Your task to perform on an android device: toggle data saver in the chrome app Image 0: 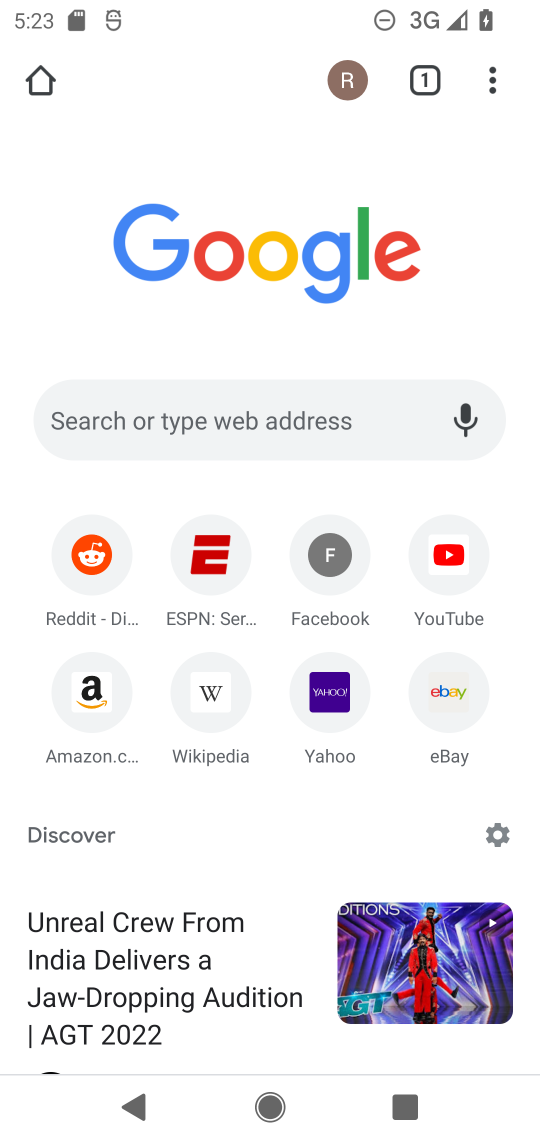
Step 0: click (499, 69)
Your task to perform on an android device: toggle data saver in the chrome app Image 1: 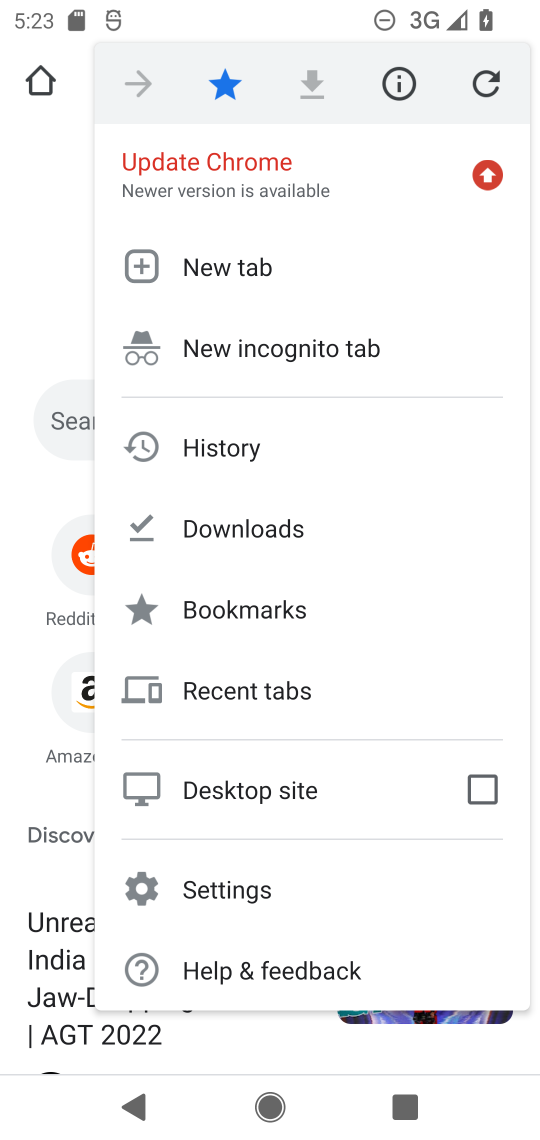
Step 1: click (254, 877)
Your task to perform on an android device: toggle data saver in the chrome app Image 2: 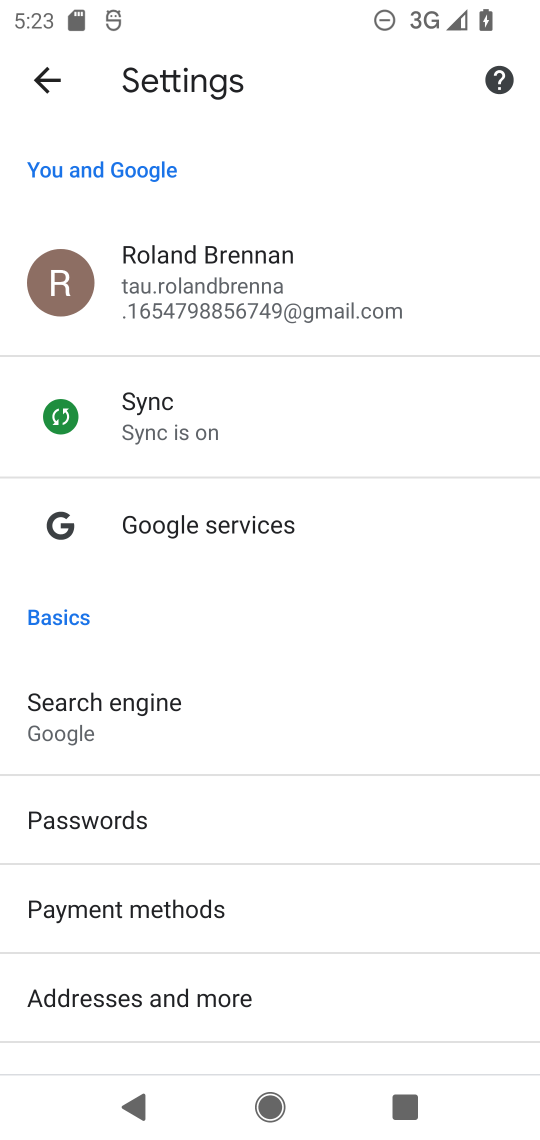
Step 2: drag from (140, 949) to (182, 310)
Your task to perform on an android device: toggle data saver in the chrome app Image 3: 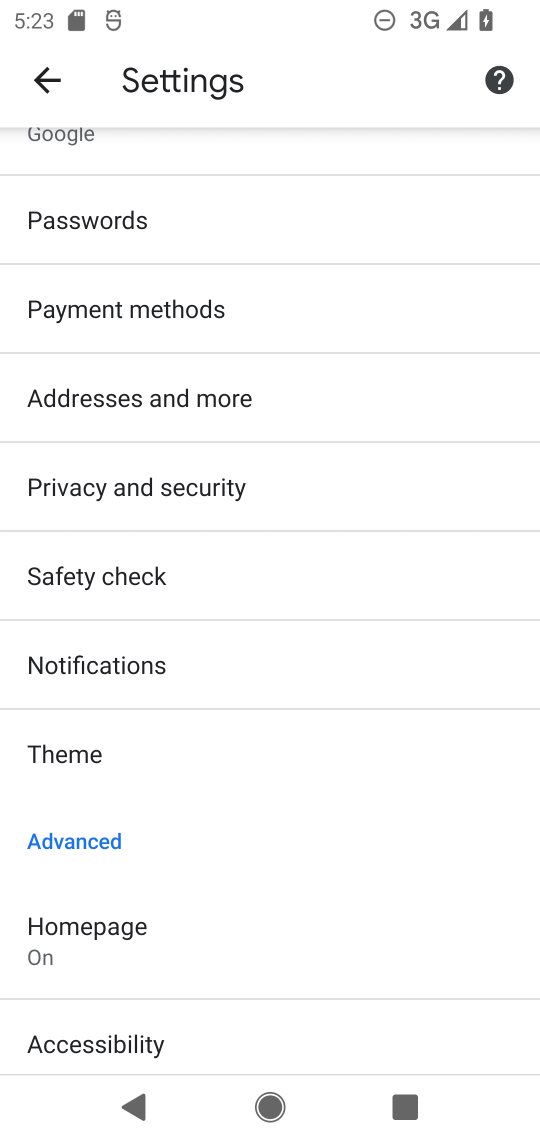
Step 3: drag from (151, 964) to (172, 278)
Your task to perform on an android device: toggle data saver in the chrome app Image 4: 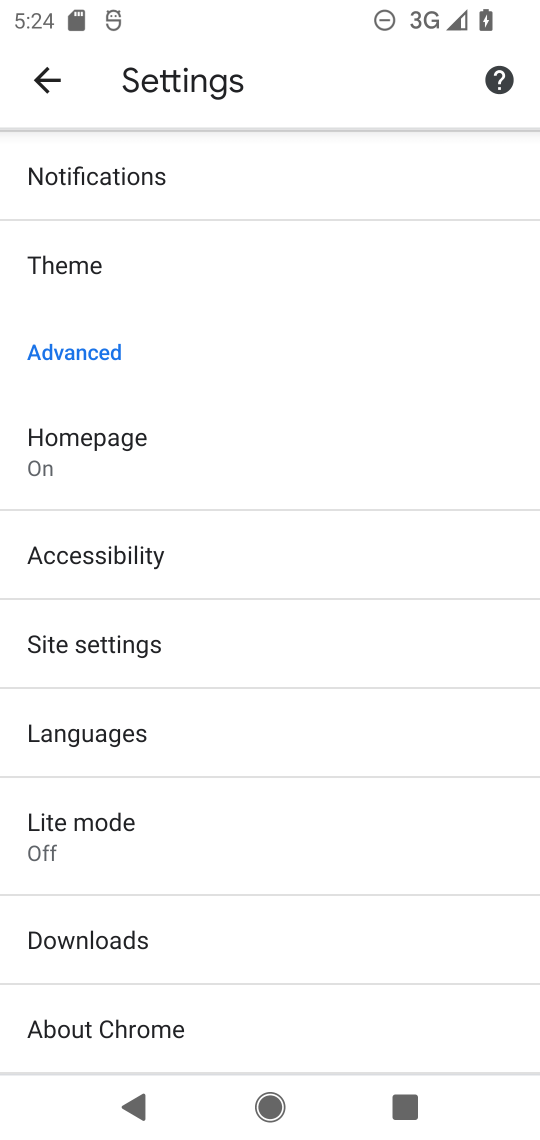
Step 4: click (111, 837)
Your task to perform on an android device: toggle data saver in the chrome app Image 5: 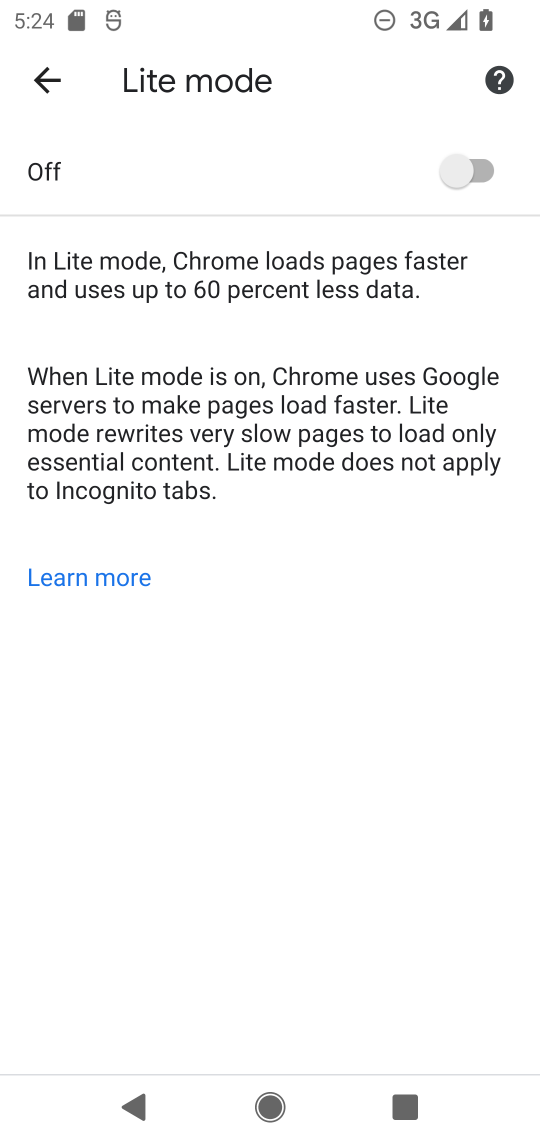
Step 5: click (457, 142)
Your task to perform on an android device: toggle data saver in the chrome app Image 6: 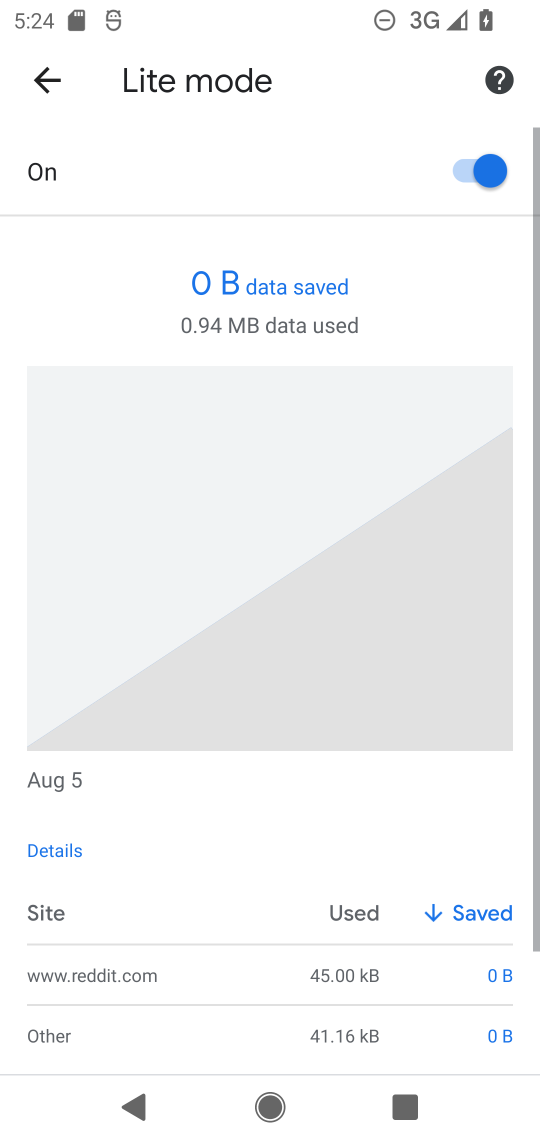
Step 6: task complete